Your task to perform on an android device: turn on notifications settings in the gmail app Image 0: 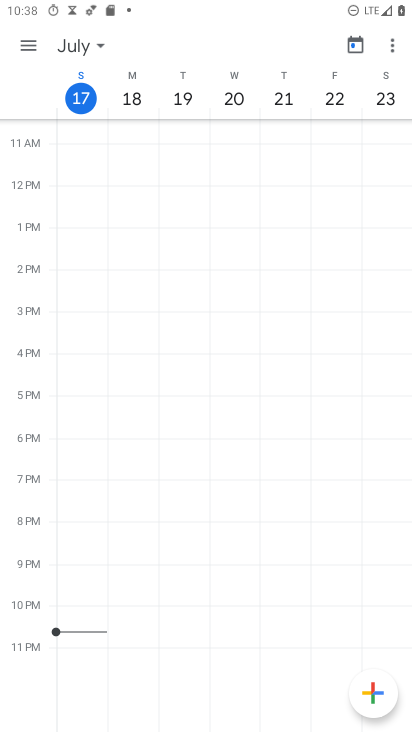
Step 0: press home button
Your task to perform on an android device: turn on notifications settings in the gmail app Image 1: 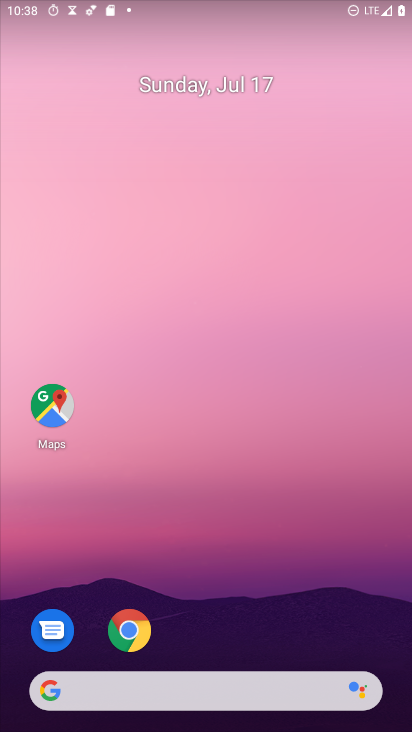
Step 1: drag from (295, 662) to (345, 18)
Your task to perform on an android device: turn on notifications settings in the gmail app Image 2: 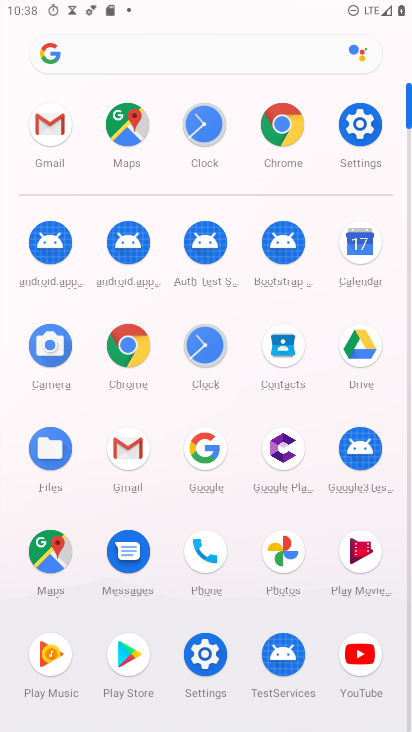
Step 2: click (111, 440)
Your task to perform on an android device: turn on notifications settings in the gmail app Image 3: 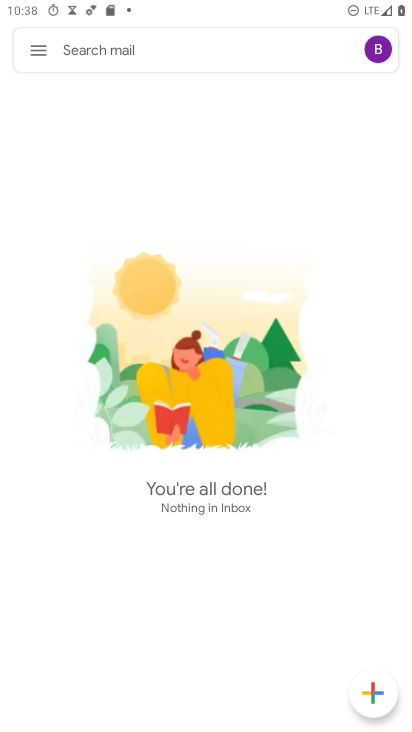
Step 3: click (37, 44)
Your task to perform on an android device: turn on notifications settings in the gmail app Image 4: 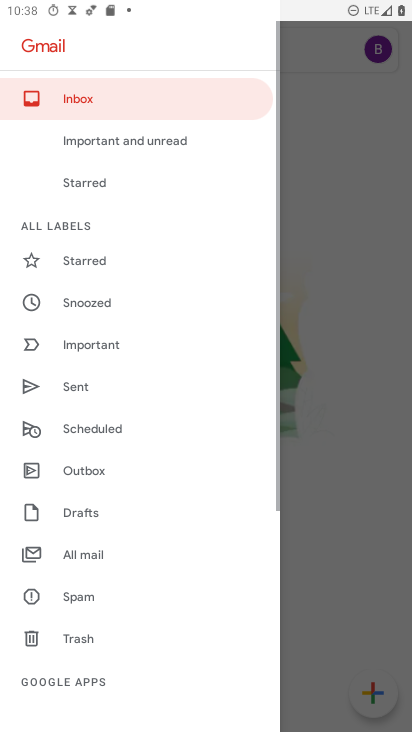
Step 4: drag from (101, 647) to (139, 220)
Your task to perform on an android device: turn on notifications settings in the gmail app Image 5: 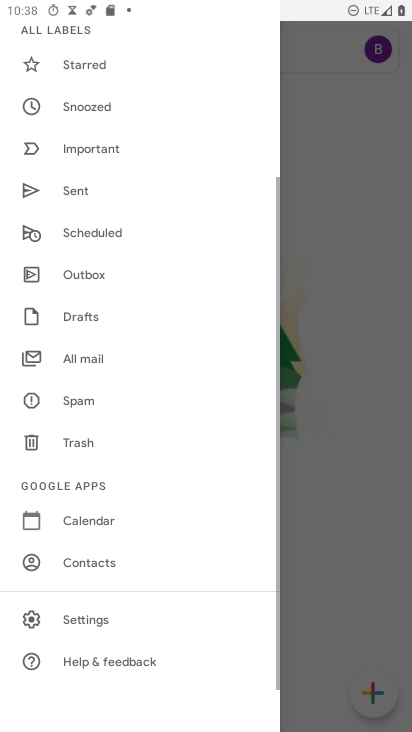
Step 5: click (119, 620)
Your task to perform on an android device: turn on notifications settings in the gmail app Image 6: 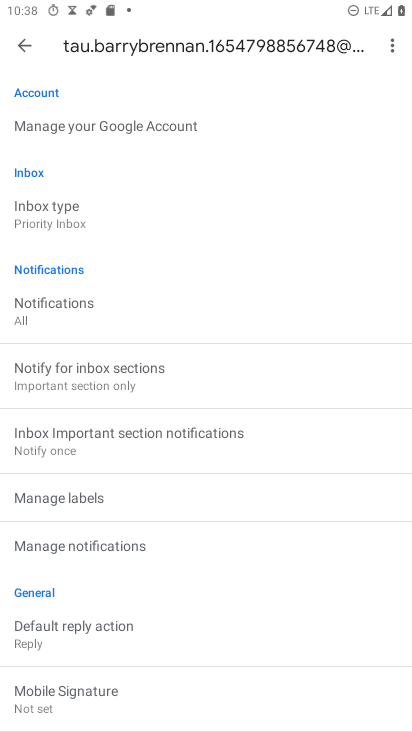
Step 6: click (122, 535)
Your task to perform on an android device: turn on notifications settings in the gmail app Image 7: 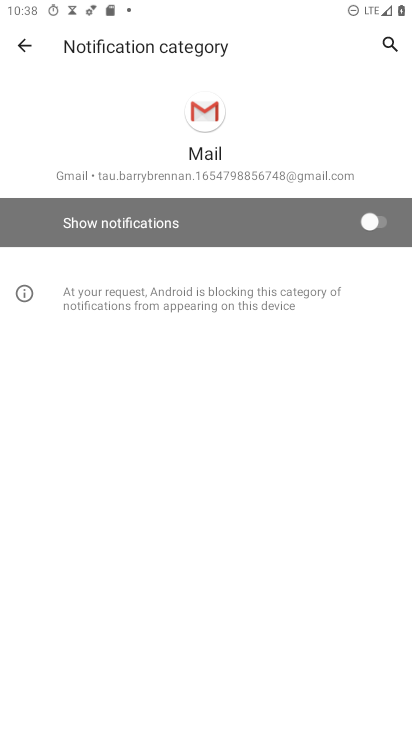
Step 7: click (377, 217)
Your task to perform on an android device: turn on notifications settings in the gmail app Image 8: 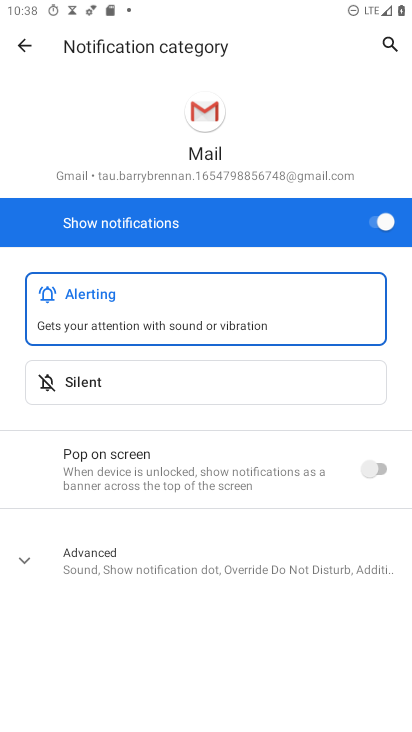
Step 8: task complete